Your task to perform on an android device: show emergency info Image 0: 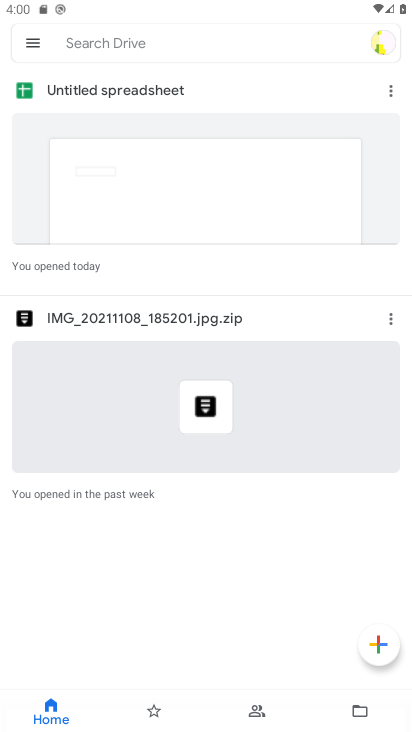
Step 0: click (382, 90)
Your task to perform on an android device: show emergency info Image 1: 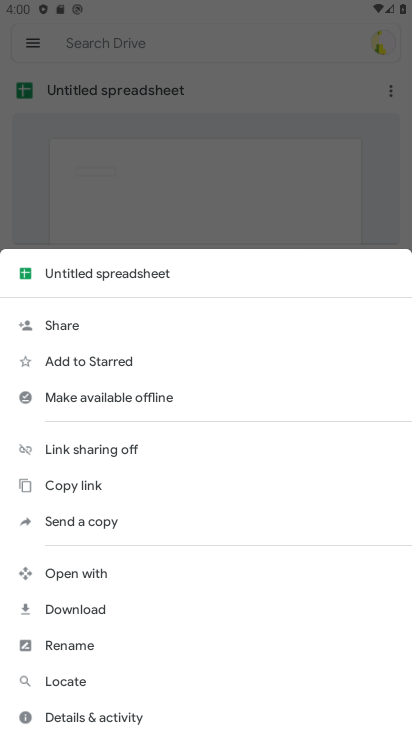
Step 1: click (295, 139)
Your task to perform on an android device: show emergency info Image 2: 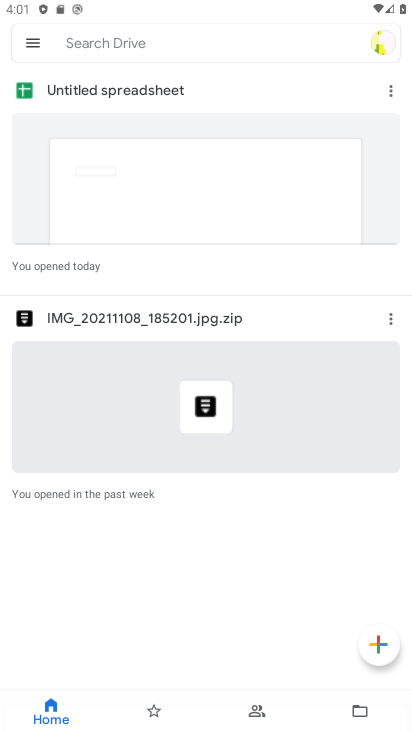
Step 2: press home button
Your task to perform on an android device: show emergency info Image 3: 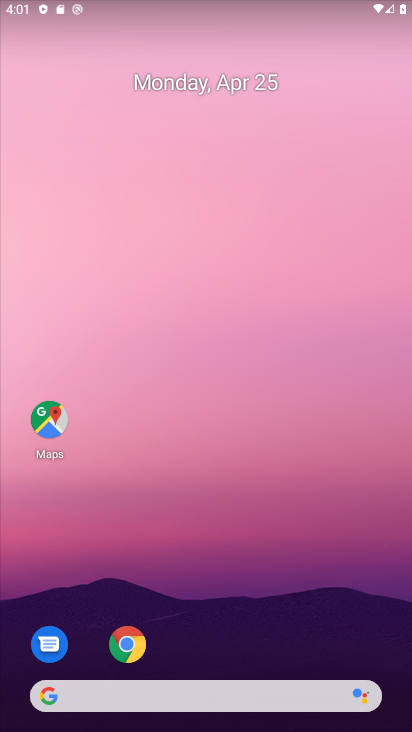
Step 3: drag from (197, 279) to (199, 243)
Your task to perform on an android device: show emergency info Image 4: 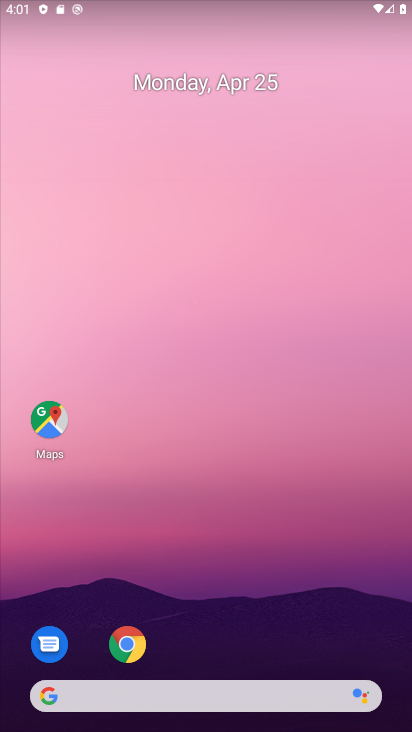
Step 4: drag from (211, 649) to (212, 200)
Your task to perform on an android device: show emergency info Image 5: 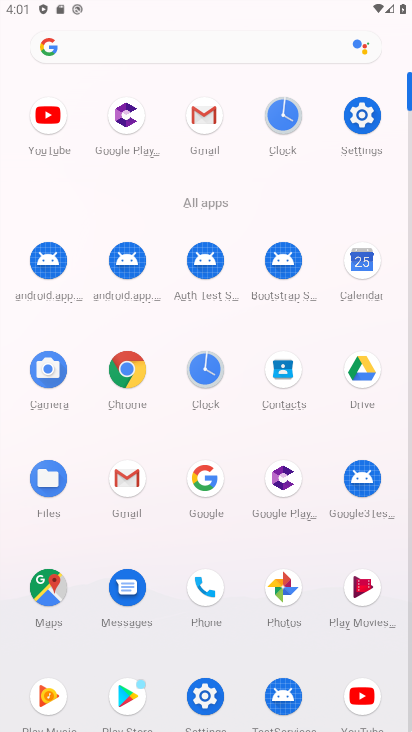
Step 5: click (349, 112)
Your task to perform on an android device: show emergency info Image 6: 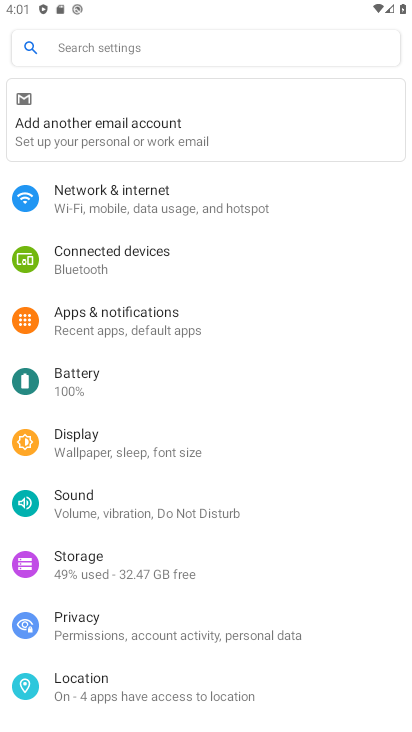
Step 6: drag from (205, 664) to (213, 347)
Your task to perform on an android device: show emergency info Image 7: 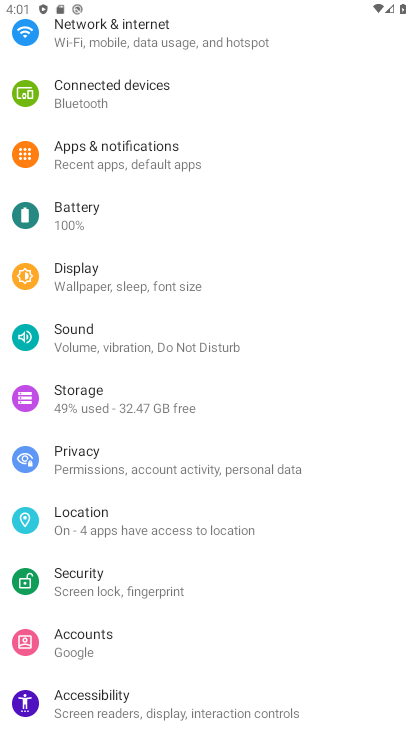
Step 7: drag from (167, 595) to (185, 240)
Your task to perform on an android device: show emergency info Image 8: 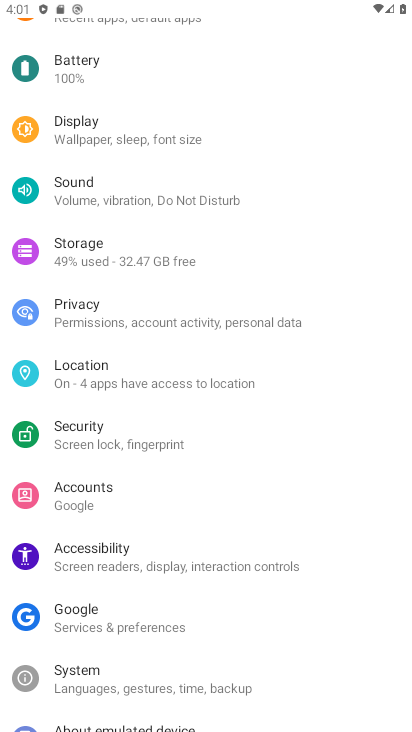
Step 8: drag from (153, 669) to (170, 462)
Your task to perform on an android device: show emergency info Image 9: 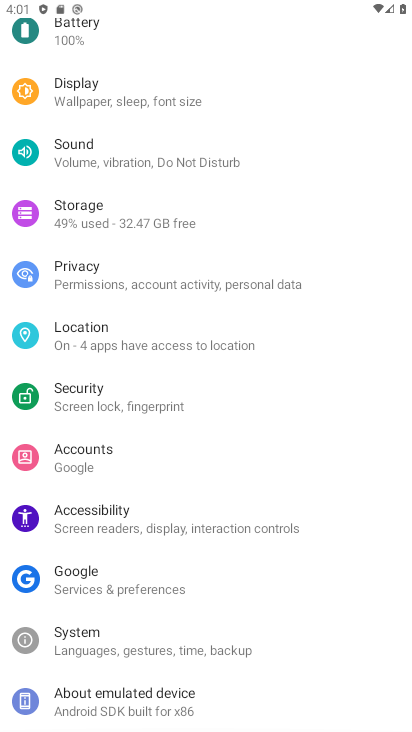
Step 9: click (143, 690)
Your task to perform on an android device: show emergency info Image 10: 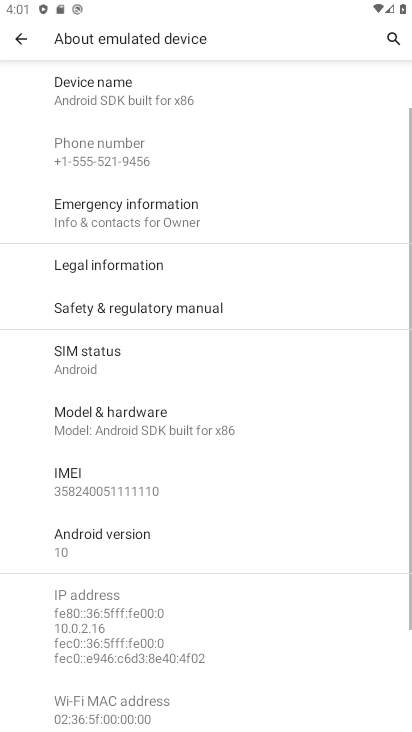
Step 10: click (123, 226)
Your task to perform on an android device: show emergency info Image 11: 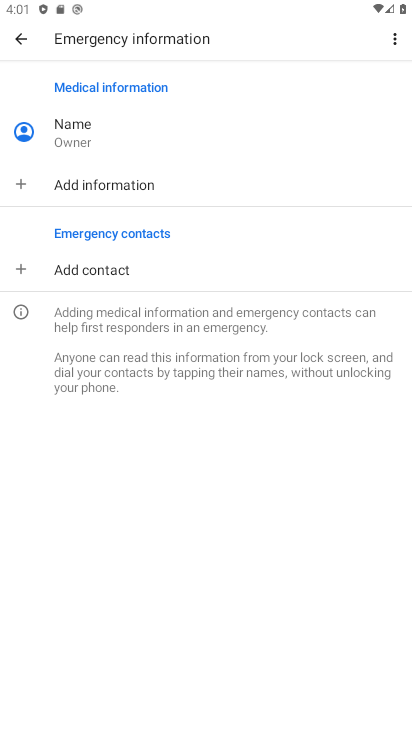
Step 11: task complete